Your task to perform on an android device: Open settings on Google Maps Image 0: 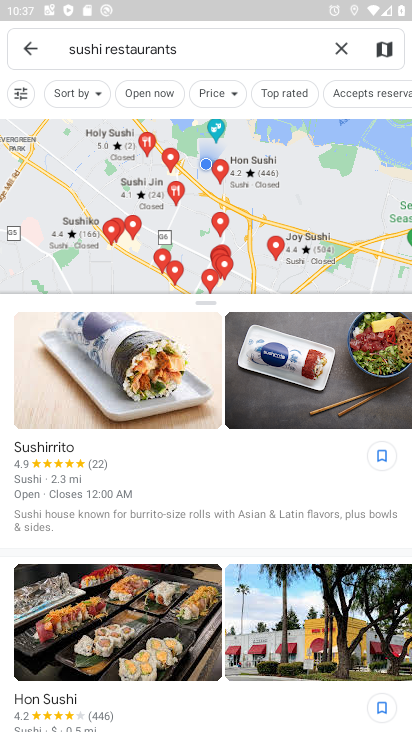
Step 0: click (27, 50)
Your task to perform on an android device: Open settings on Google Maps Image 1: 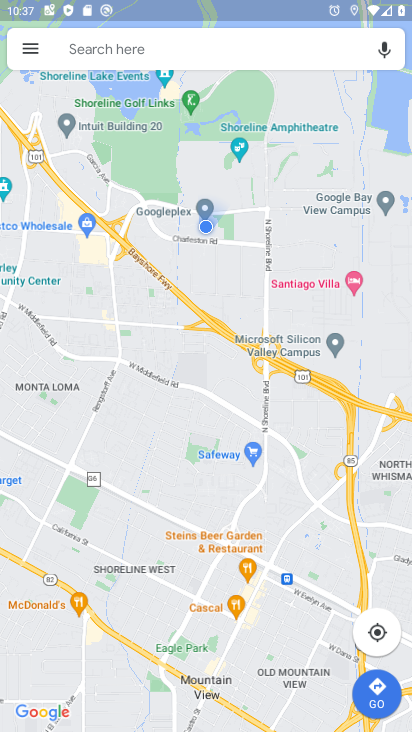
Step 1: click (27, 50)
Your task to perform on an android device: Open settings on Google Maps Image 2: 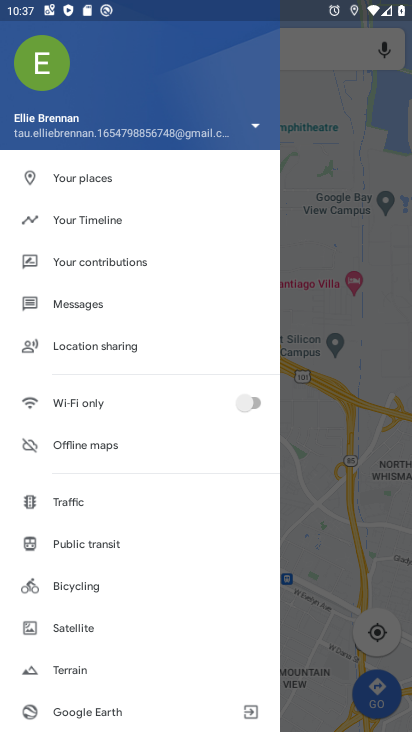
Step 2: drag from (90, 657) to (91, 127)
Your task to perform on an android device: Open settings on Google Maps Image 3: 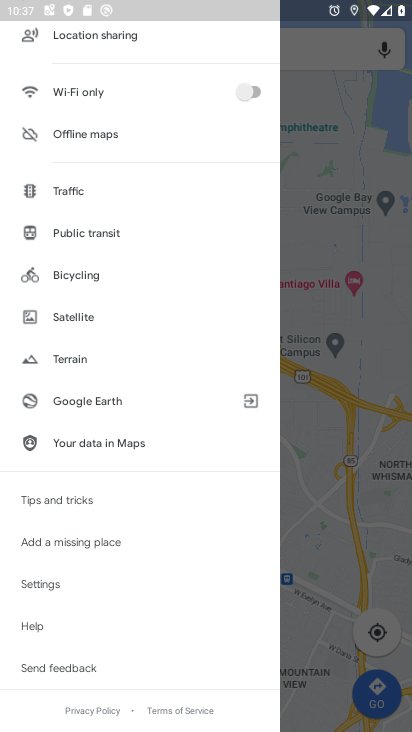
Step 3: click (57, 590)
Your task to perform on an android device: Open settings on Google Maps Image 4: 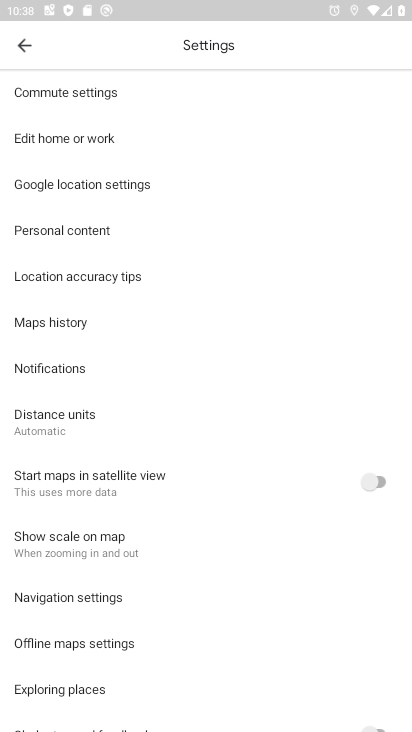
Step 4: task complete